Your task to perform on an android device: toggle airplane mode Image 0: 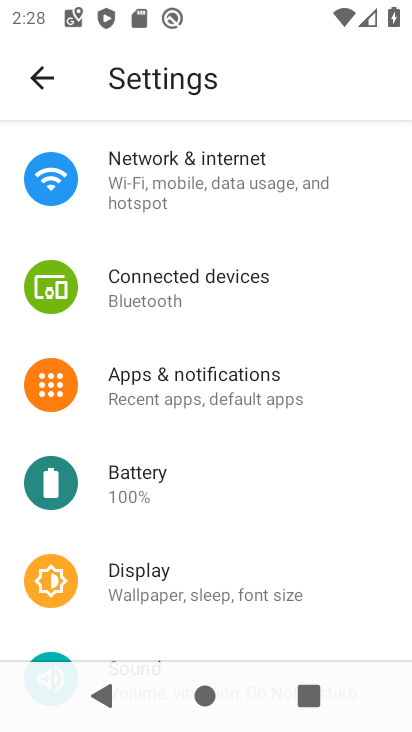
Step 0: click (190, 180)
Your task to perform on an android device: toggle airplane mode Image 1: 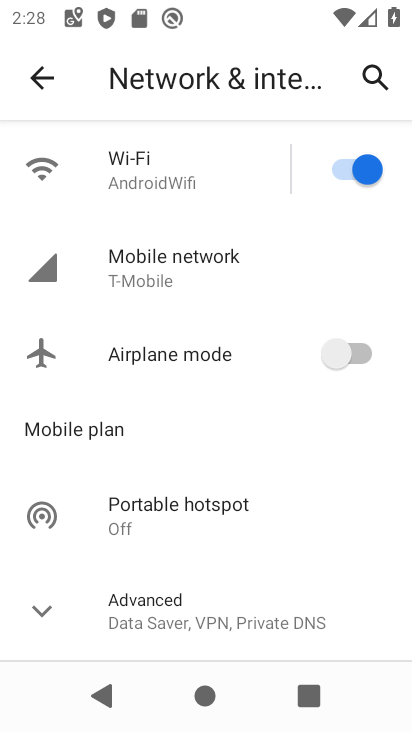
Step 1: click (360, 352)
Your task to perform on an android device: toggle airplane mode Image 2: 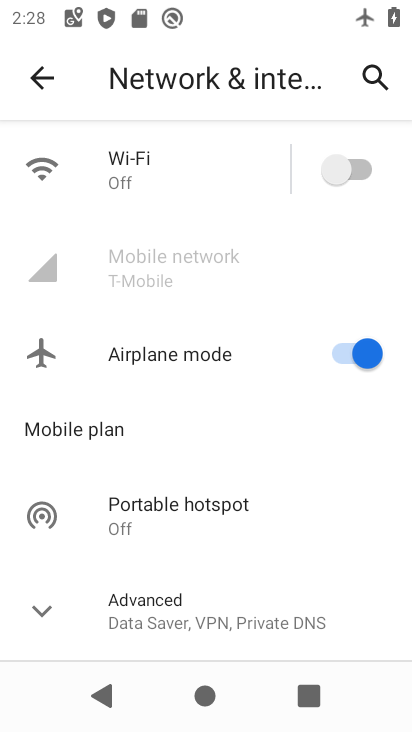
Step 2: task complete